Your task to perform on an android device: See recent photos Image 0: 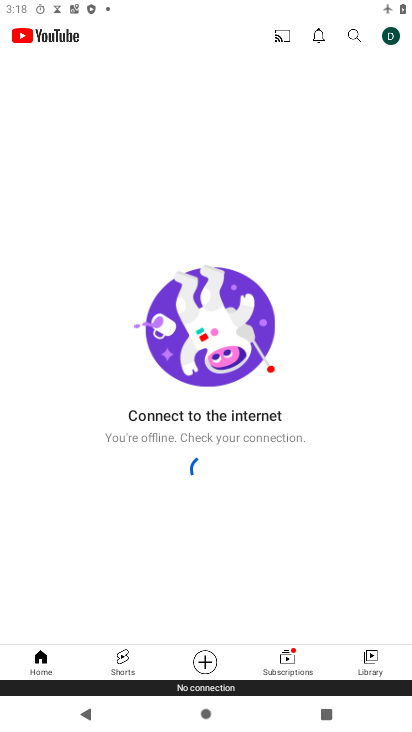
Step 0: press home button
Your task to perform on an android device: See recent photos Image 1: 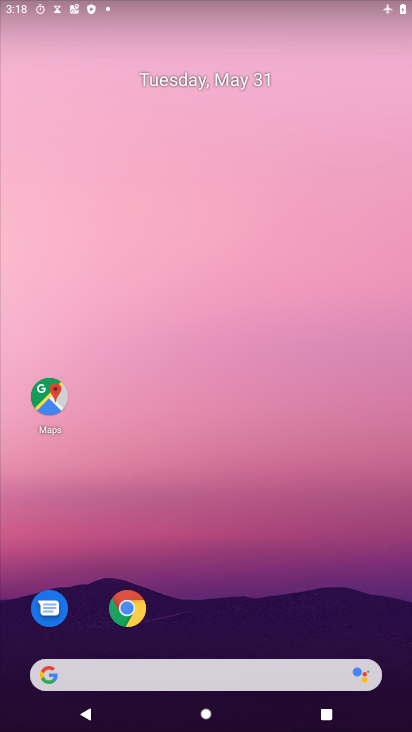
Step 1: drag from (237, 632) to (265, 196)
Your task to perform on an android device: See recent photos Image 2: 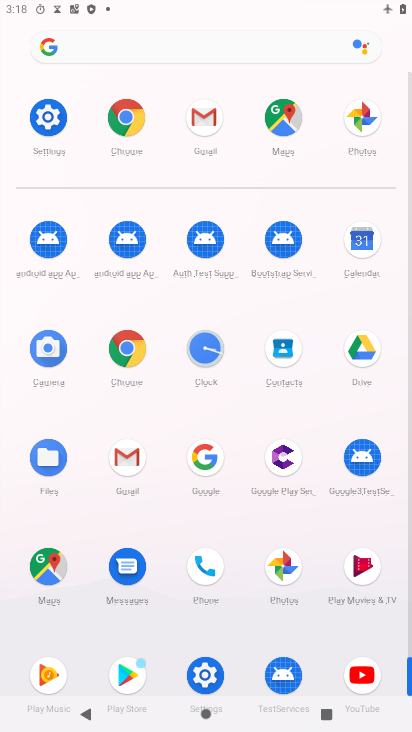
Step 2: click (287, 575)
Your task to perform on an android device: See recent photos Image 3: 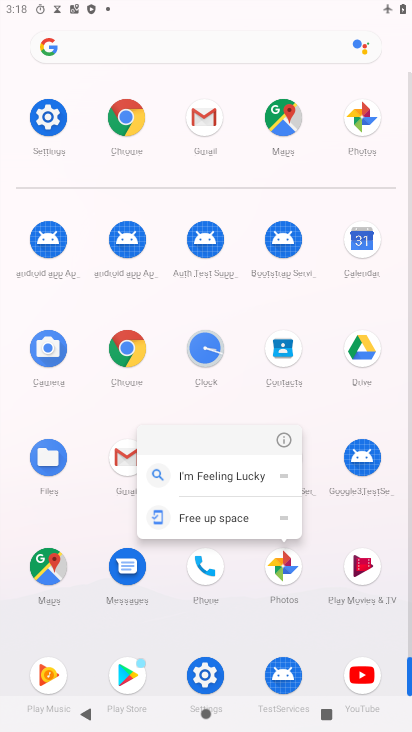
Step 3: click (289, 575)
Your task to perform on an android device: See recent photos Image 4: 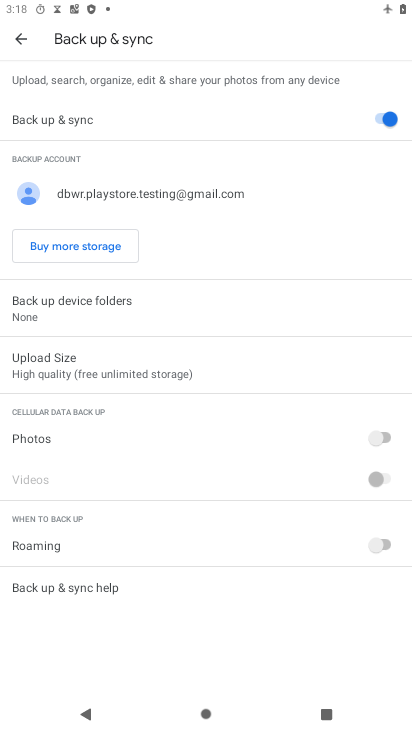
Step 4: click (9, 32)
Your task to perform on an android device: See recent photos Image 5: 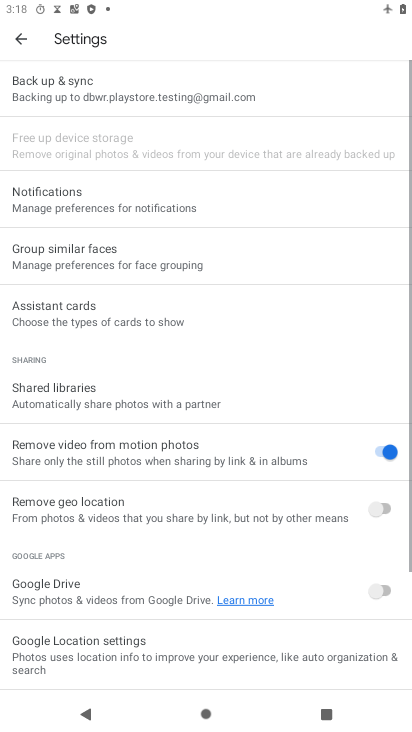
Step 5: click (23, 37)
Your task to perform on an android device: See recent photos Image 6: 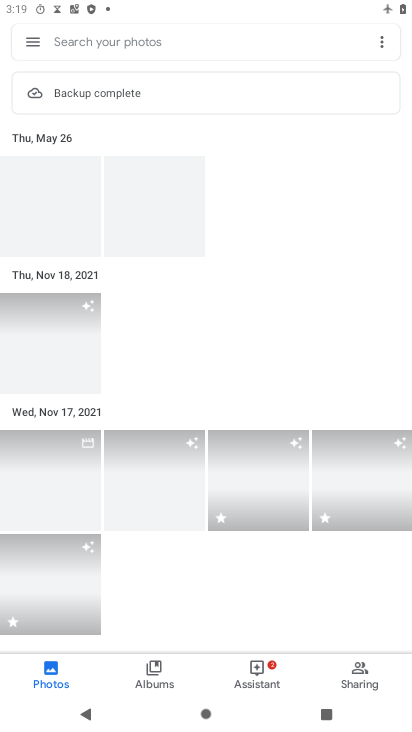
Step 6: task complete